Your task to perform on an android device: stop showing notifications on the lock screen Image 0: 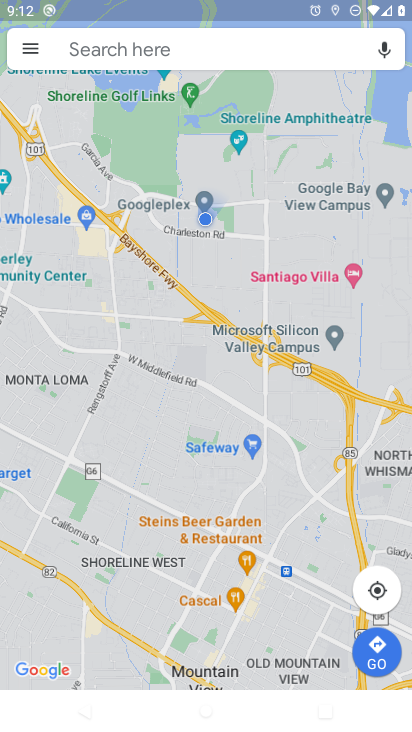
Step 0: press home button
Your task to perform on an android device: stop showing notifications on the lock screen Image 1: 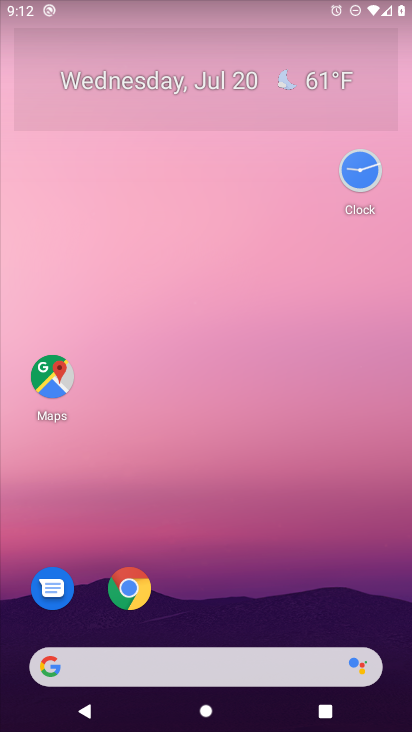
Step 1: drag from (38, 624) to (215, 170)
Your task to perform on an android device: stop showing notifications on the lock screen Image 2: 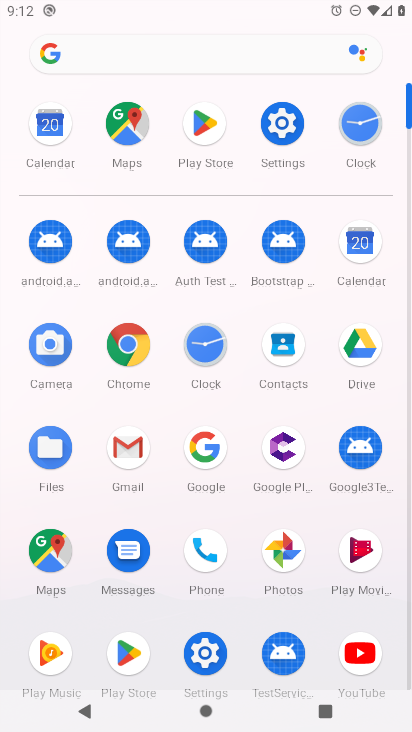
Step 2: click (212, 640)
Your task to perform on an android device: stop showing notifications on the lock screen Image 3: 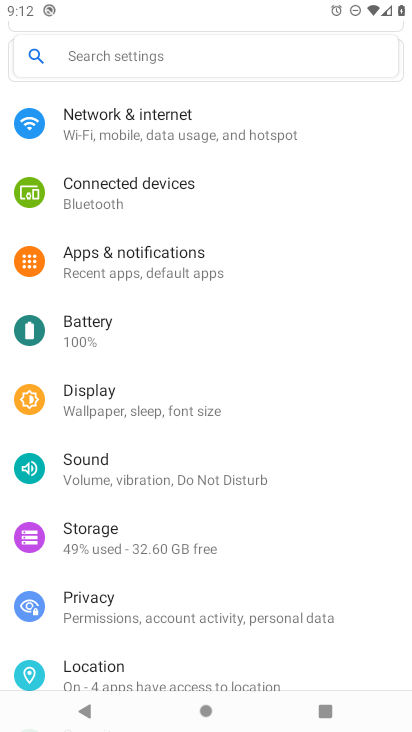
Step 3: click (150, 612)
Your task to perform on an android device: stop showing notifications on the lock screen Image 4: 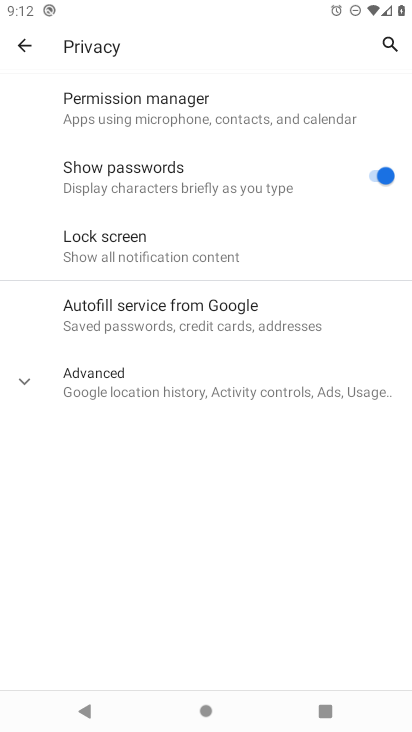
Step 4: click (143, 256)
Your task to perform on an android device: stop showing notifications on the lock screen Image 5: 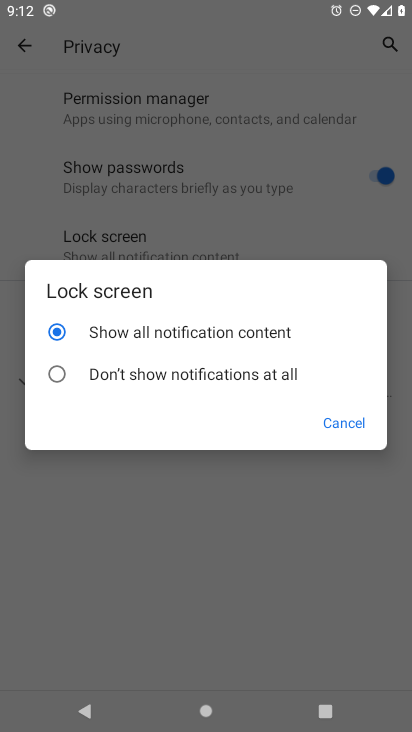
Step 5: click (141, 368)
Your task to perform on an android device: stop showing notifications on the lock screen Image 6: 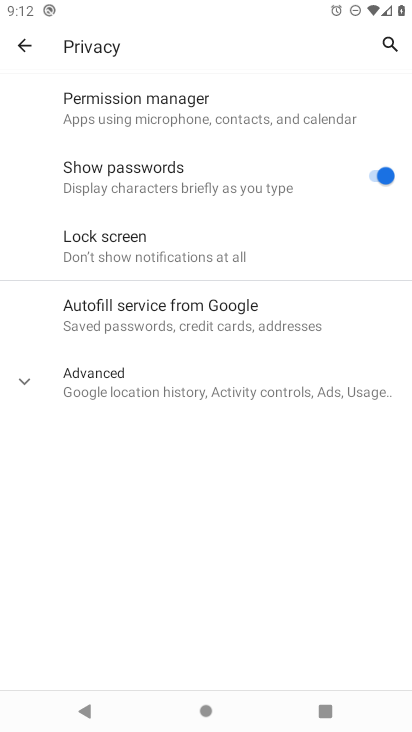
Step 6: task complete